Your task to perform on an android device: open chrome and create a bookmark for the current page Image 0: 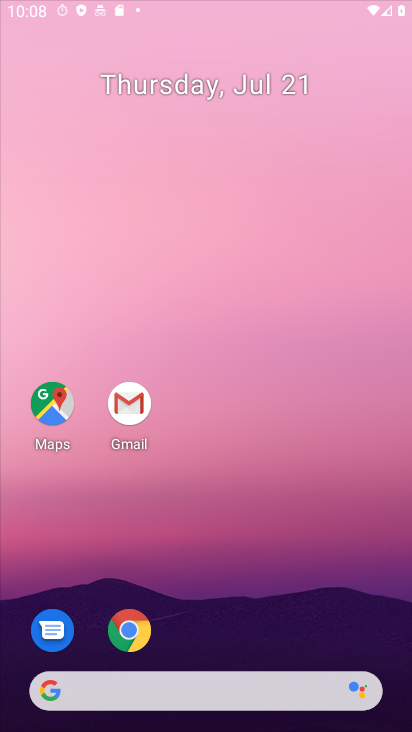
Step 0: drag from (252, 452) to (212, 263)
Your task to perform on an android device: open chrome and create a bookmark for the current page Image 1: 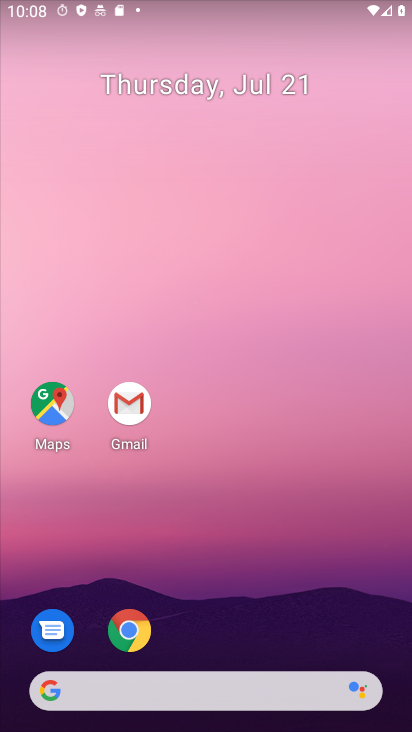
Step 1: drag from (277, 662) to (206, 85)
Your task to perform on an android device: open chrome and create a bookmark for the current page Image 2: 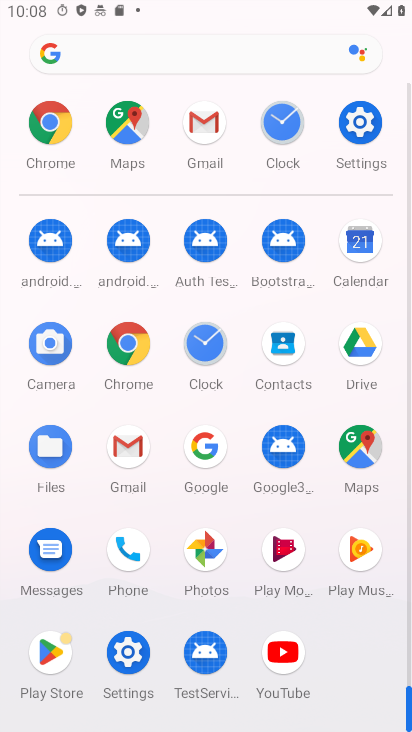
Step 2: click (359, 447)
Your task to perform on an android device: open chrome and create a bookmark for the current page Image 3: 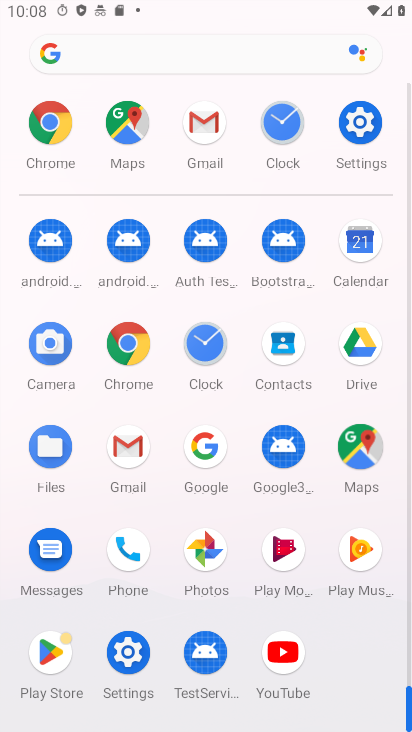
Step 3: click (359, 447)
Your task to perform on an android device: open chrome and create a bookmark for the current page Image 4: 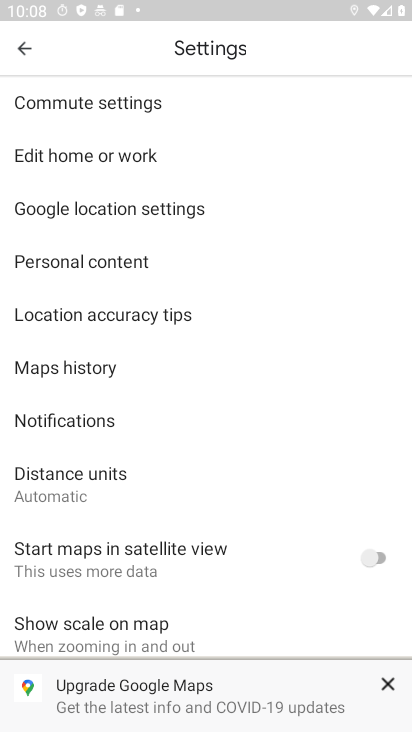
Step 4: click (27, 49)
Your task to perform on an android device: open chrome and create a bookmark for the current page Image 5: 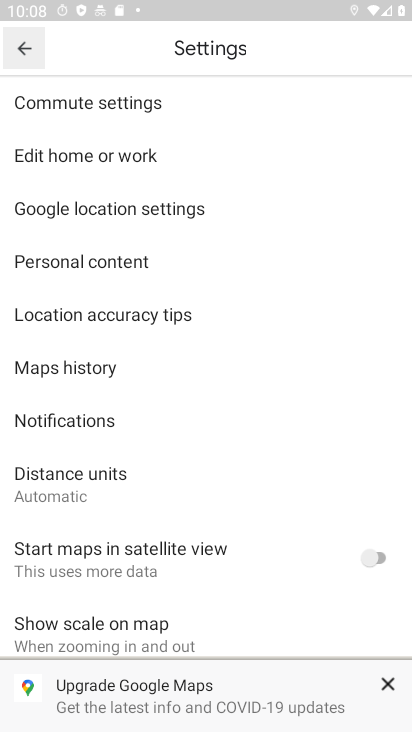
Step 5: click (27, 49)
Your task to perform on an android device: open chrome and create a bookmark for the current page Image 6: 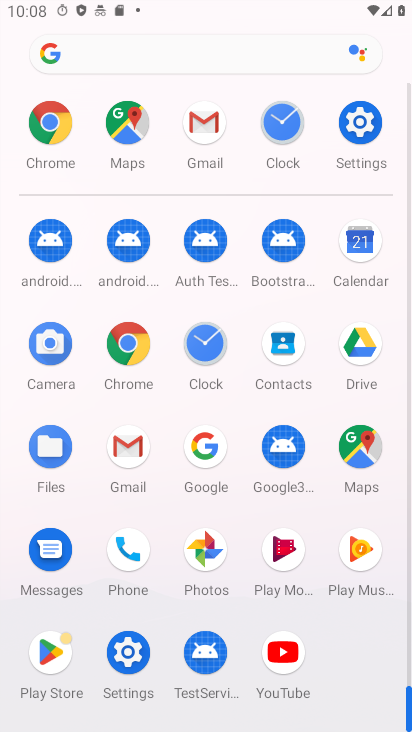
Step 6: press back button
Your task to perform on an android device: open chrome and create a bookmark for the current page Image 7: 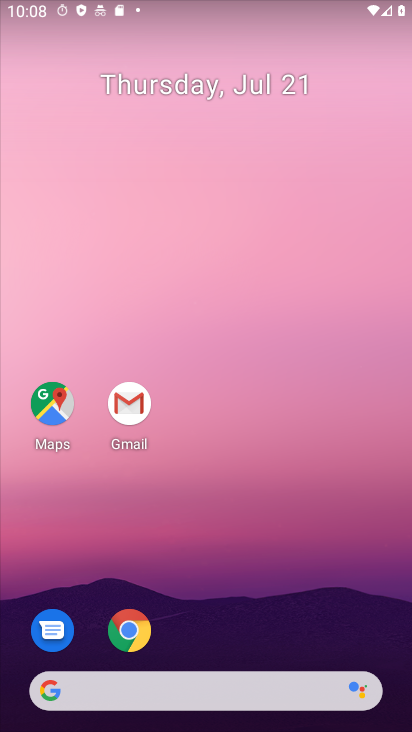
Step 7: drag from (237, 648) to (201, 373)
Your task to perform on an android device: open chrome and create a bookmark for the current page Image 8: 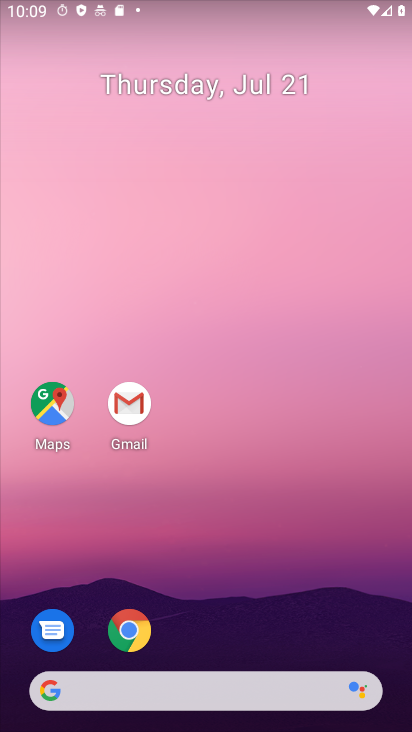
Step 8: drag from (300, 565) to (234, 165)
Your task to perform on an android device: open chrome and create a bookmark for the current page Image 9: 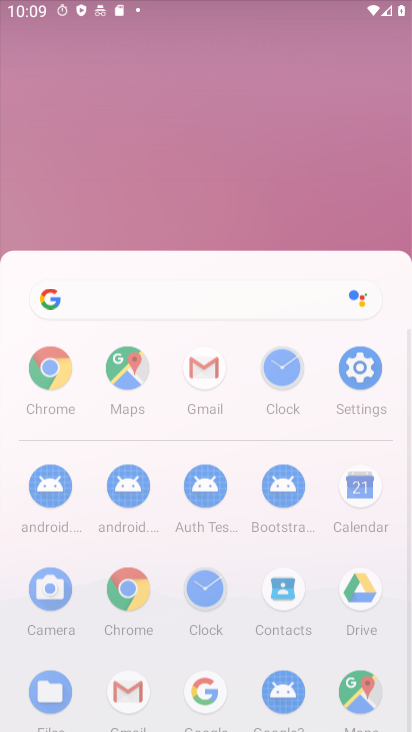
Step 9: drag from (250, 476) to (290, 23)
Your task to perform on an android device: open chrome and create a bookmark for the current page Image 10: 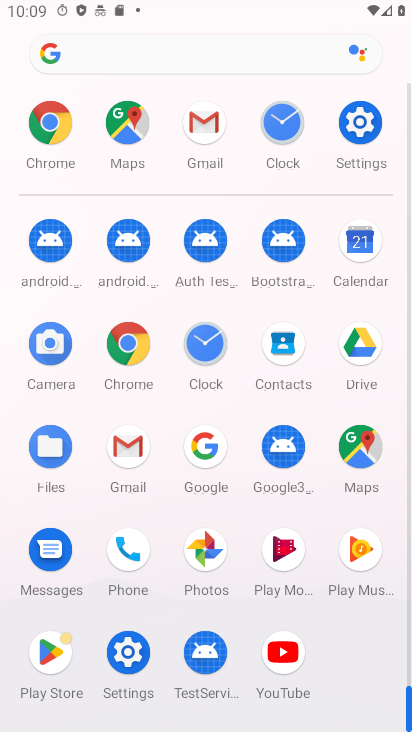
Step 10: click (116, 348)
Your task to perform on an android device: open chrome and create a bookmark for the current page Image 11: 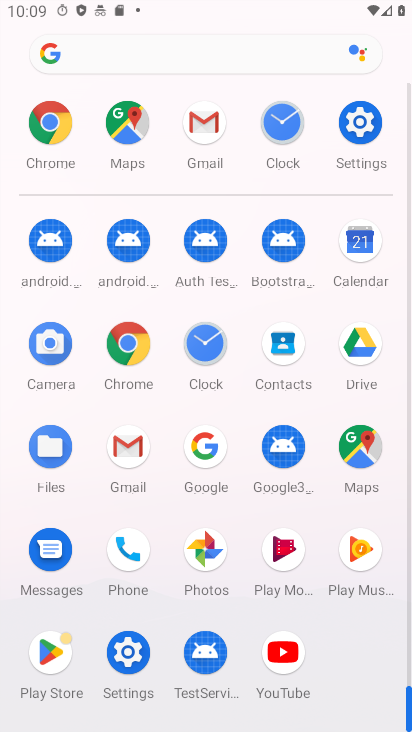
Step 11: click (115, 349)
Your task to perform on an android device: open chrome and create a bookmark for the current page Image 12: 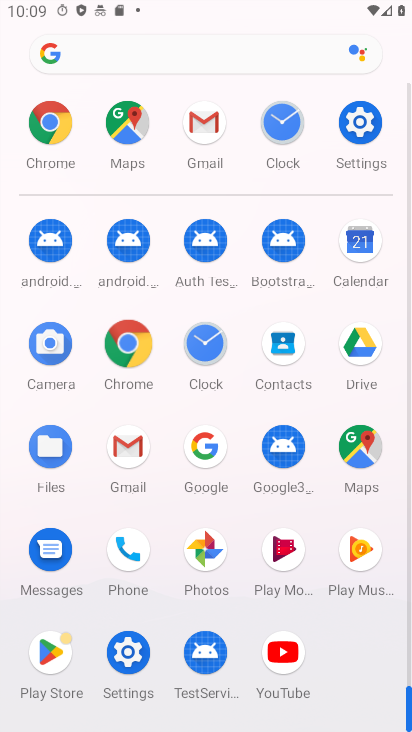
Step 12: click (114, 351)
Your task to perform on an android device: open chrome and create a bookmark for the current page Image 13: 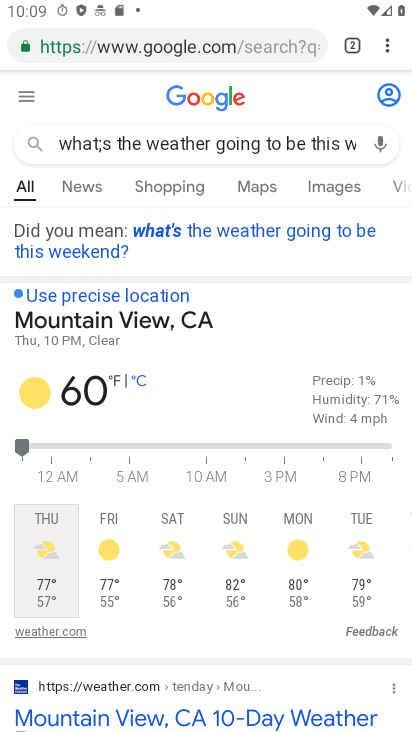
Step 13: drag from (385, 45) to (249, 49)
Your task to perform on an android device: open chrome and create a bookmark for the current page Image 14: 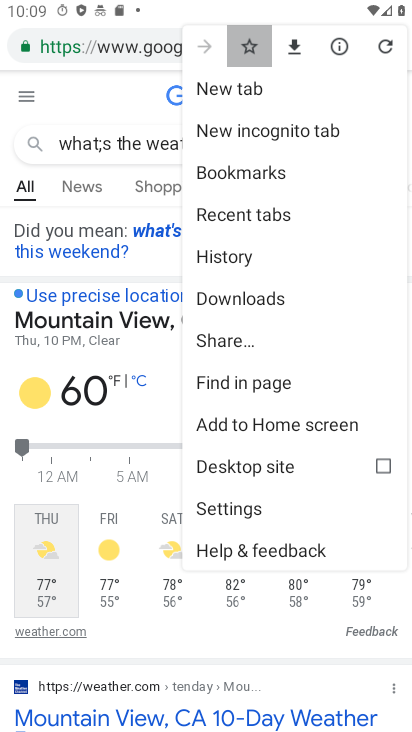
Step 14: click (249, 49)
Your task to perform on an android device: open chrome and create a bookmark for the current page Image 15: 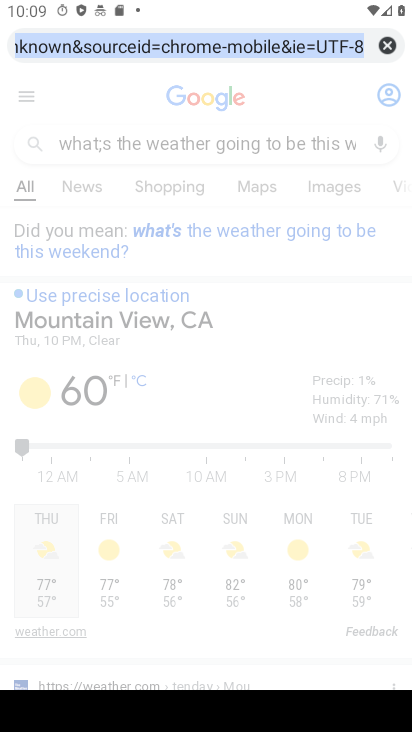
Step 15: click (383, 49)
Your task to perform on an android device: open chrome and create a bookmark for the current page Image 16: 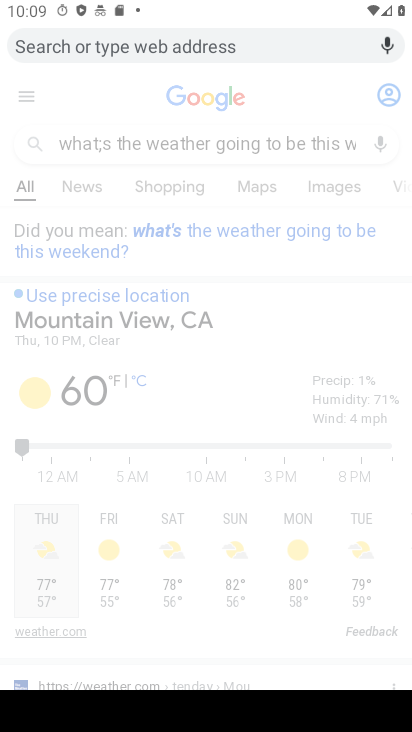
Step 16: task complete